Your task to perform on an android device: move a message to another label in the gmail app Image 0: 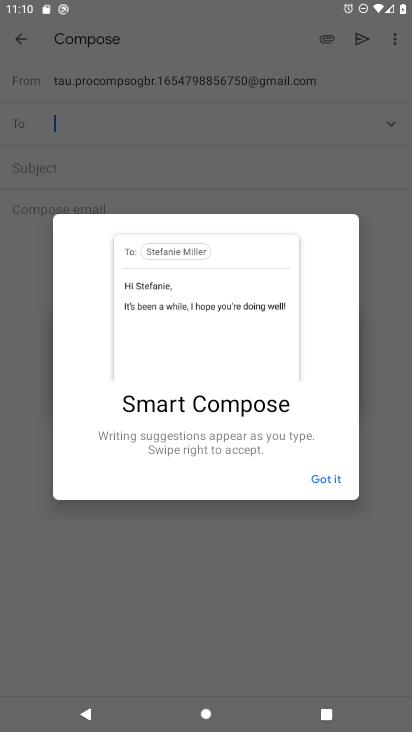
Step 0: press home button
Your task to perform on an android device: move a message to another label in the gmail app Image 1: 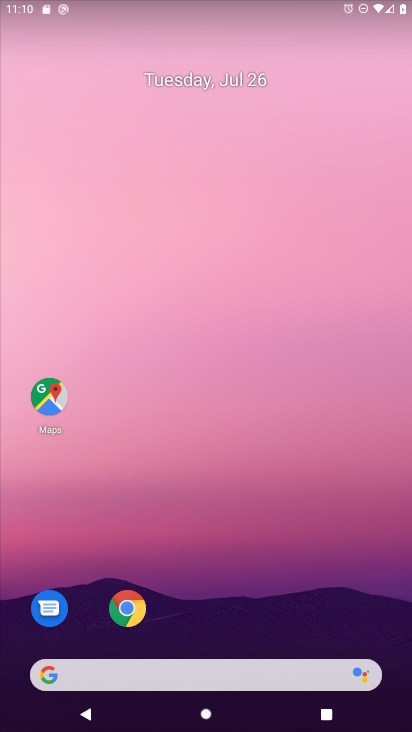
Step 1: drag from (306, 608) to (228, 124)
Your task to perform on an android device: move a message to another label in the gmail app Image 2: 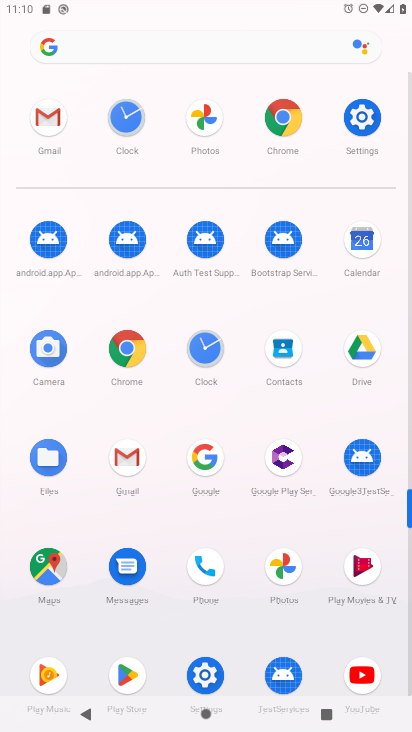
Step 2: click (125, 466)
Your task to perform on an android device: move a message to another label in the gmail app Image 3: 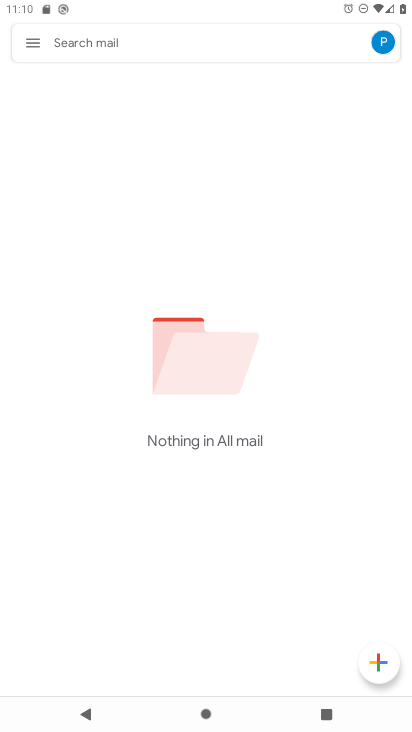
Step 3: click (33, 43)
Your task to perform on an android device: move a message to another label in the gmail app Image 4: 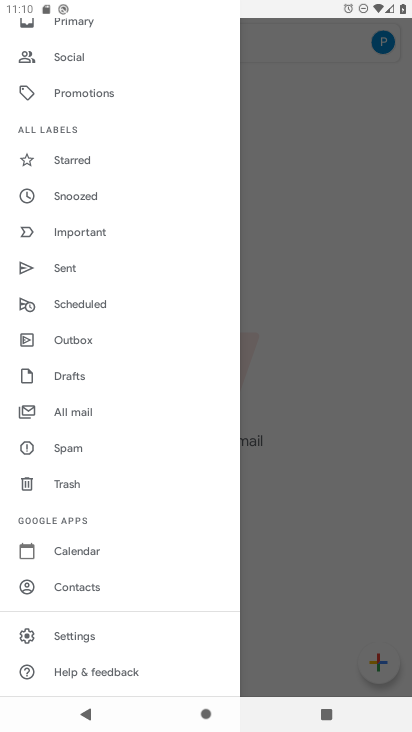
Step 4: click (84, 627)
Your task to perform on an android device: move a message to another label in the gmail app Image 5: 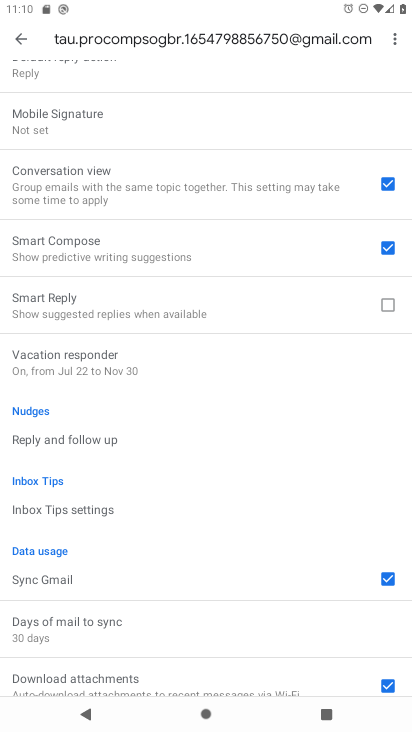
Step 5: click (16, 38)
Your task to perform on an android device: move a message to another label in the gmail app Image 6: 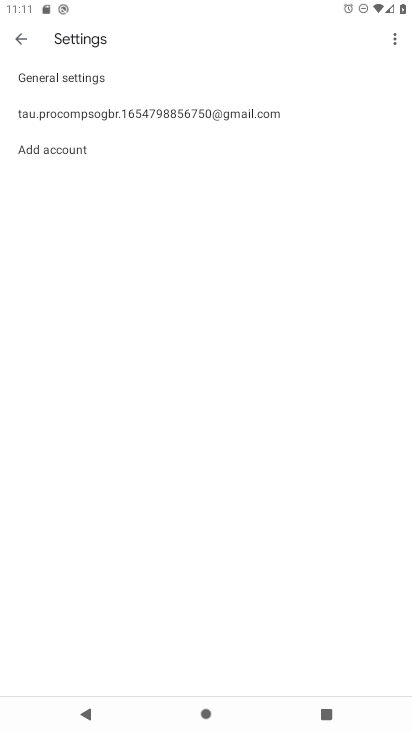
Step 6: click (12, 40)
Your task to perform on an android device: move a message to another label in the gmail app Image 7: 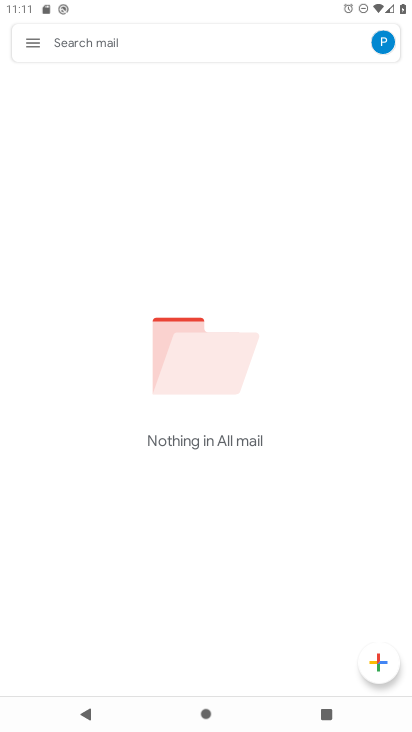
Step 7: task complete